Your task to perform on an android device: Go to battery settings Image 0: 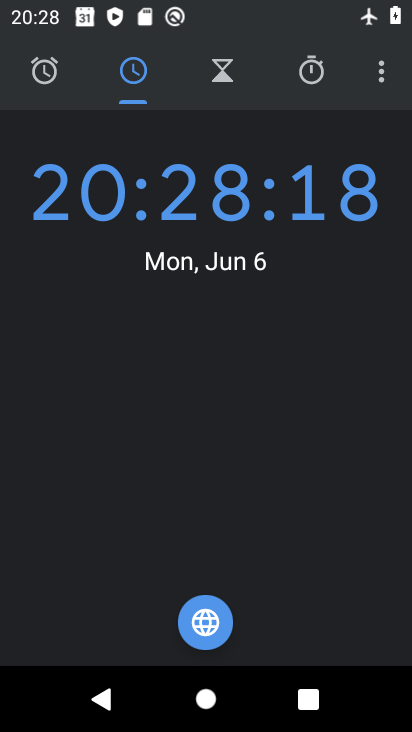
Step 0: press home button
Your task to perform on an android device: Go to battery settings Image 1: 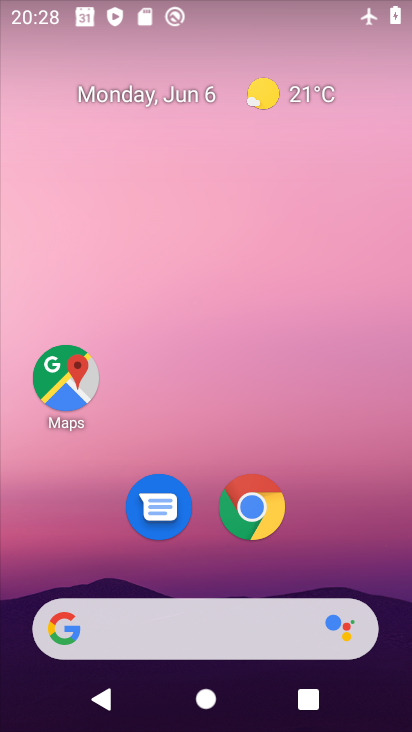
Step 1: drag from (200, 579) to (271, 107)
Your task to perform on an android device: Go to battery settings Image 2: 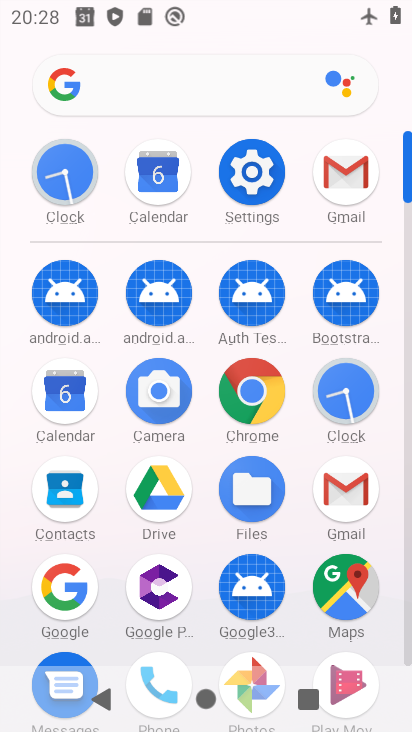
Step 2: click (245, 165)
Your task to perform on an android device: Go to battery settings Image 3: 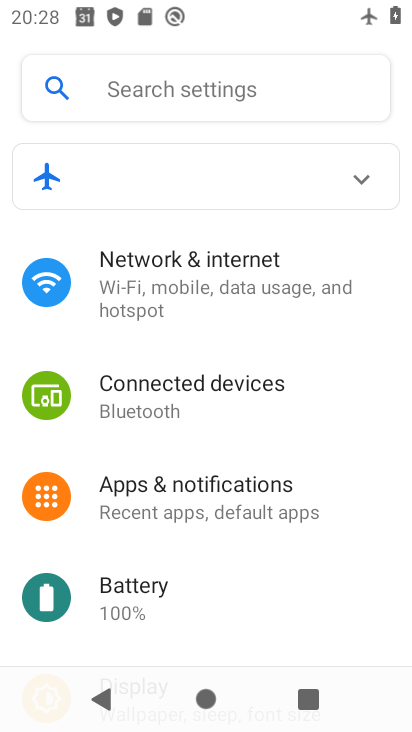
Step 3: click (182, 611)
Your task to perform on an android device: Go to battery settings Image 4: 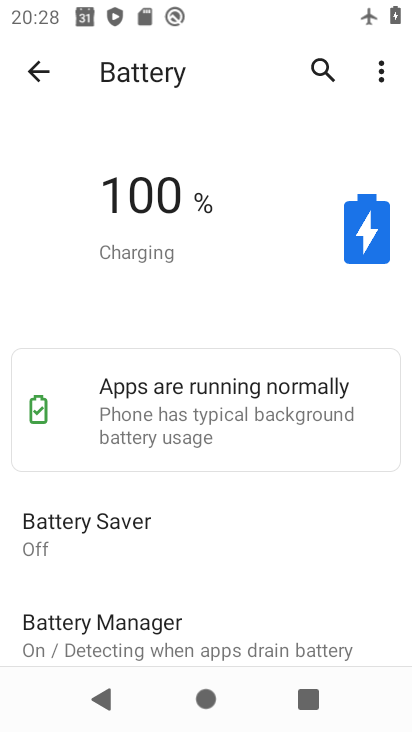
Step 4: task complete